Your task to perform on an android device: Show me recent news Image 0: 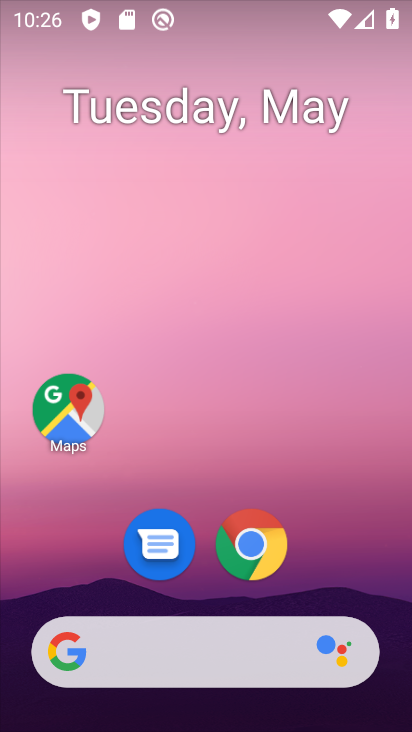
Step 0: click (192, 652)
Your task to perform on an android device: Show me recent news Image 1: 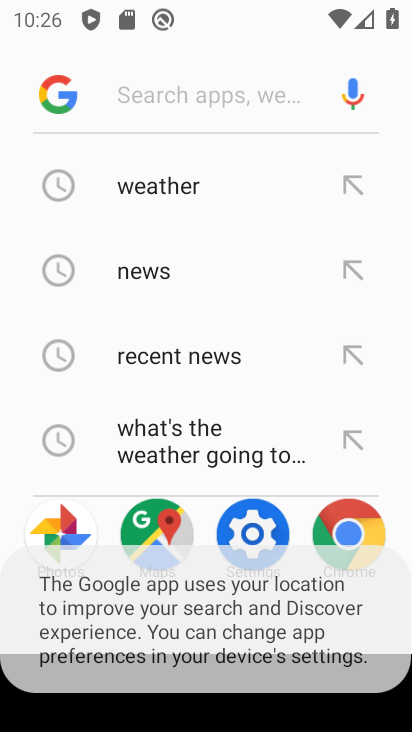
Step 1: click (222, 351)
Your task to perform on an android device: Show me recent news Image 2: 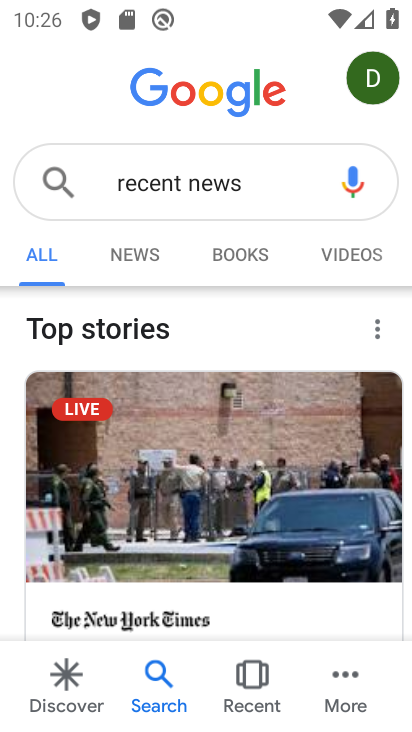
Step 2: task complete